Your task to perform on an android device: Open accessibility settings Image 0: 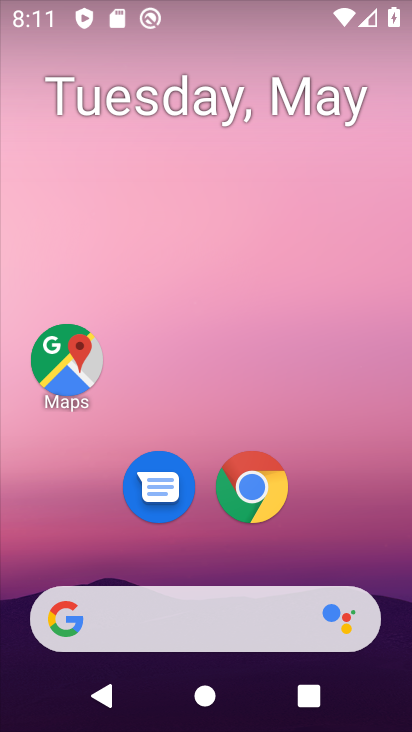
Step 0: press home button
Your task to perform on an android device: Open accessibility settings Image 1: 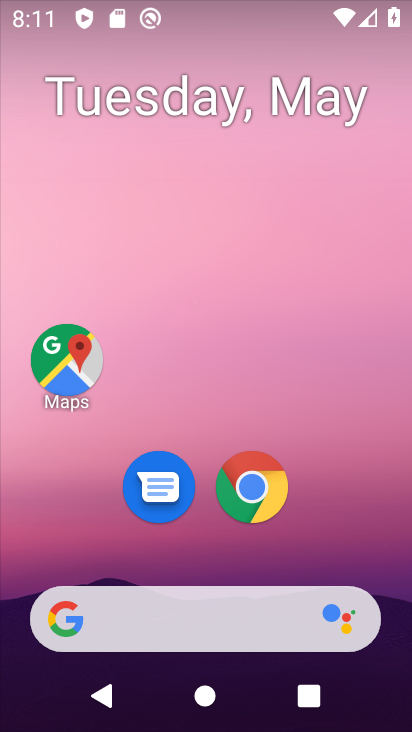
Step 1: drag from (208, 559) to (237, 3)
Your task to perform on an android device: Open accessibility settings Image 2: 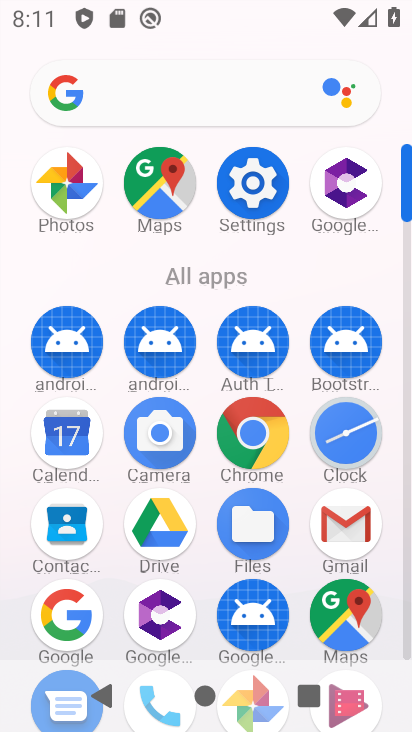
Step 2: click (254, 176)
Your task to perform on an android device: Open accessibility settings Image 3: 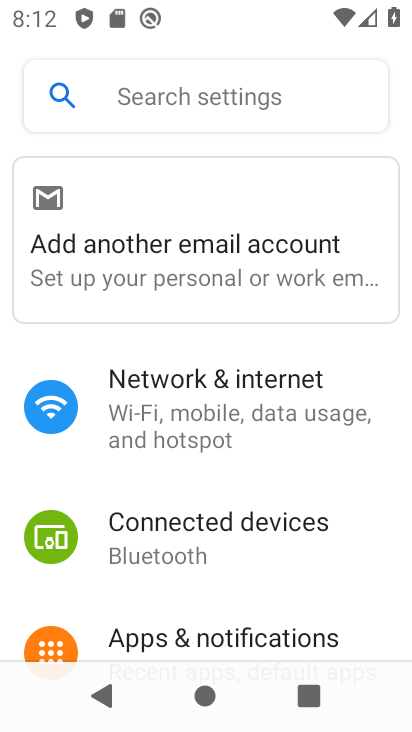
Step 3: drag from (218, 593) to (256, 128)
Your task to perform on an android device: Open accessibility settings Image 4: 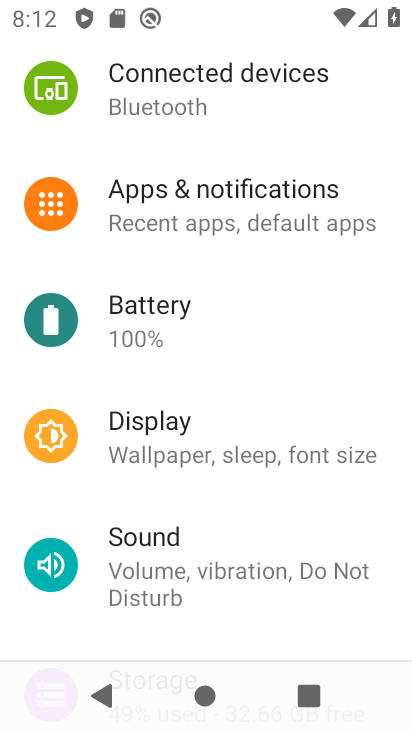
Step 4: drag from (209, 626) to (228, 29)
Your task to perform on an android device: Open accessibility settings Image 5: 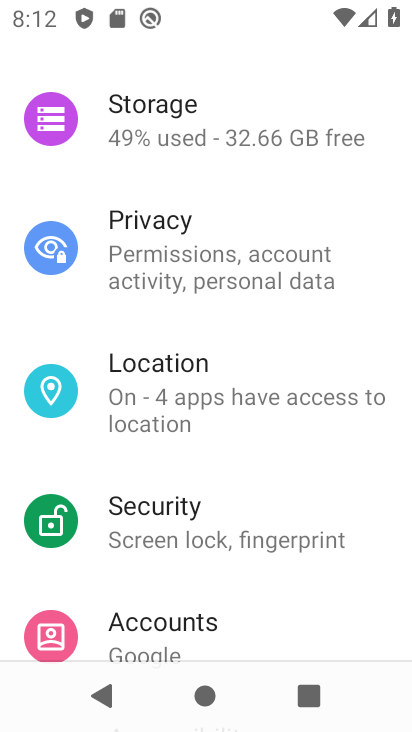
Step 5: drag from (248, 625) to (237, 70)
Your task to perform on an android device: Open accessibility settings Image 6: 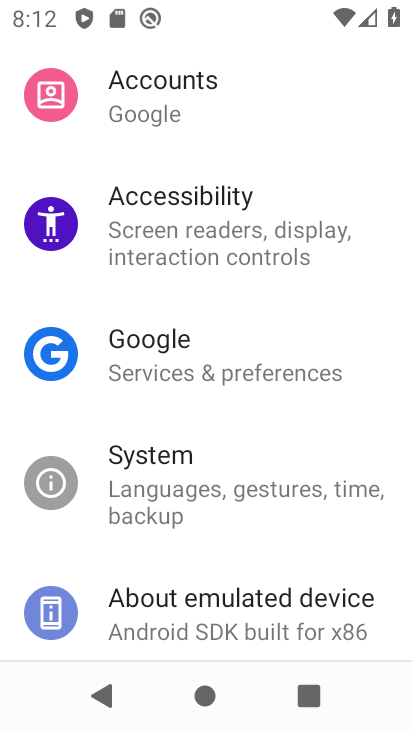
Step 6: click (203, 218)
Your task to perform on an android device: Open accessibility settings Image 7: 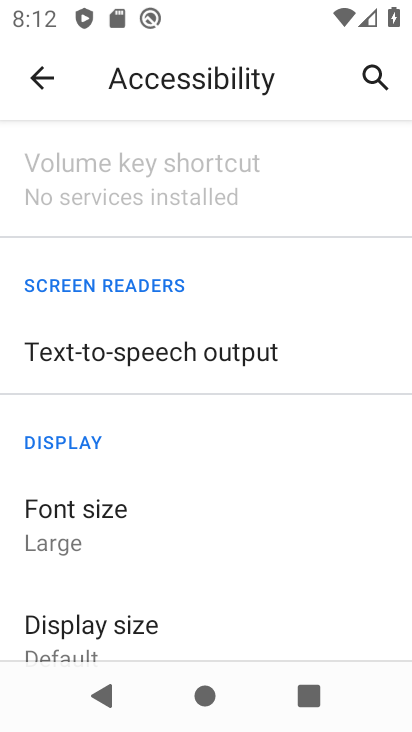
Step 7: task complete